Your task to perform on an android device: set the stopwatch Image 0: 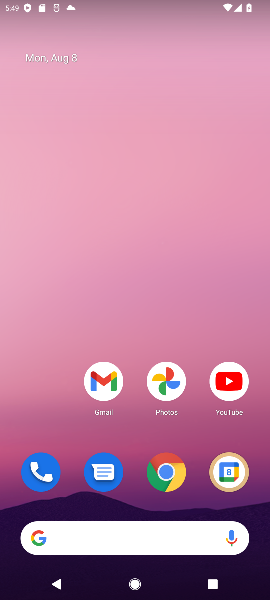
Step 0: press home button
Your task to perform on an android device: set the stopwatch Image 1: 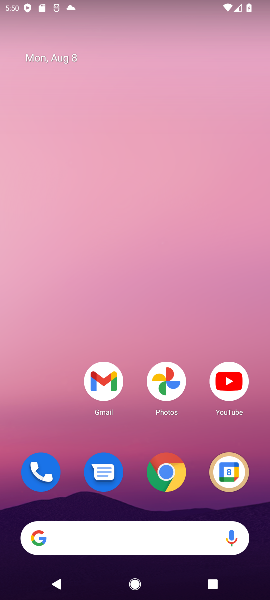
Step 1: drag from (148, 514) to (91, 4)
Your task to perform on an android device: set the stopwatch Image 2: 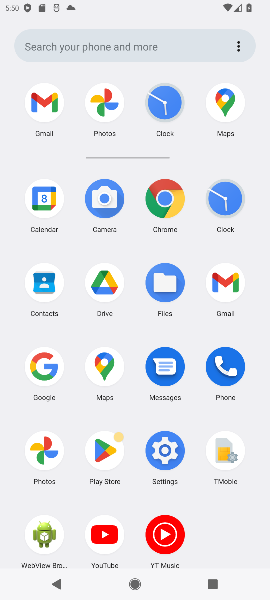
Step 2: click (159, 116)
Your task to perform on an android device: set the stopwatch Image 3: 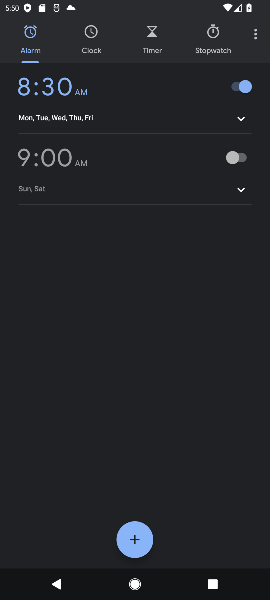
Step 3: click (211, 36)
Your task to perform on an android device: set the stopwatch Image 4: 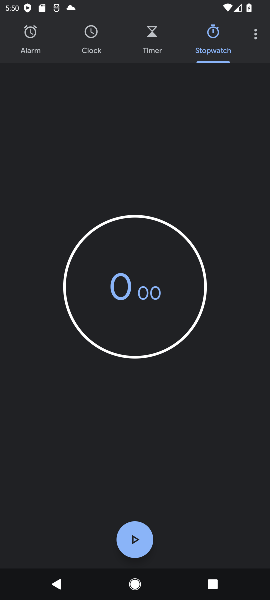
Step 4: click (134, 536)
Your task to perform on an android device: set the stopwatch Image 5: 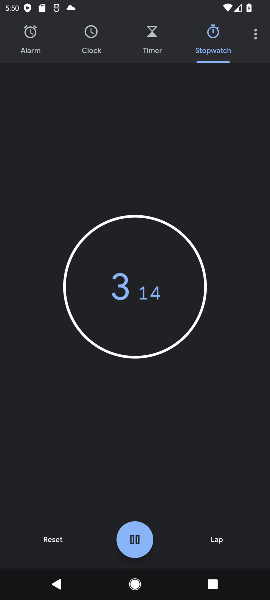
Step 5: task complete